Your task to perform on an android device: turn off smart reply in the gmail app Image 0: 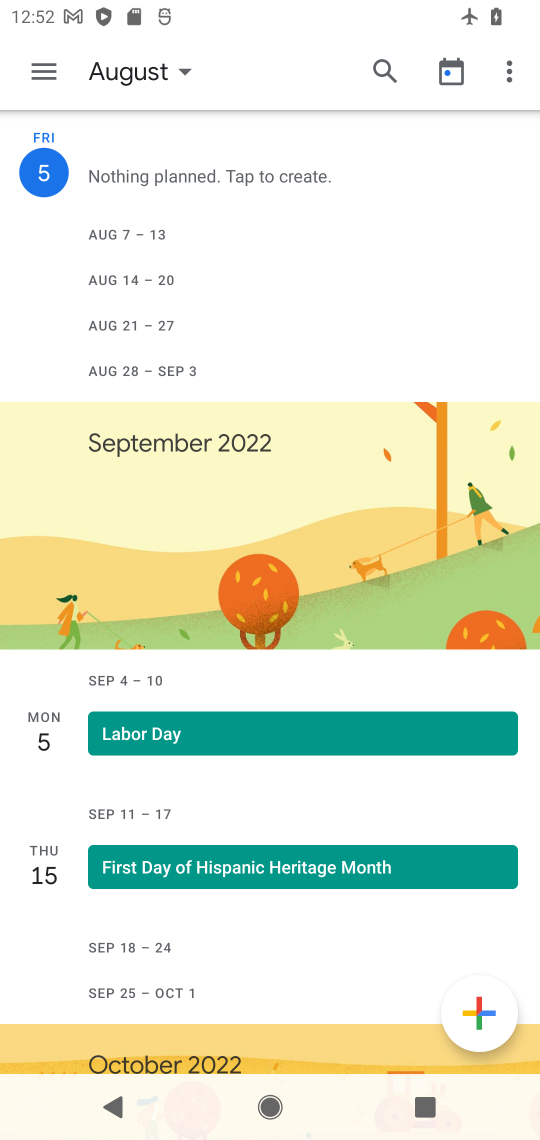
Step 0: press home button
Your task to perform on an android device: turn off smart reply in the gmail app Image 1: 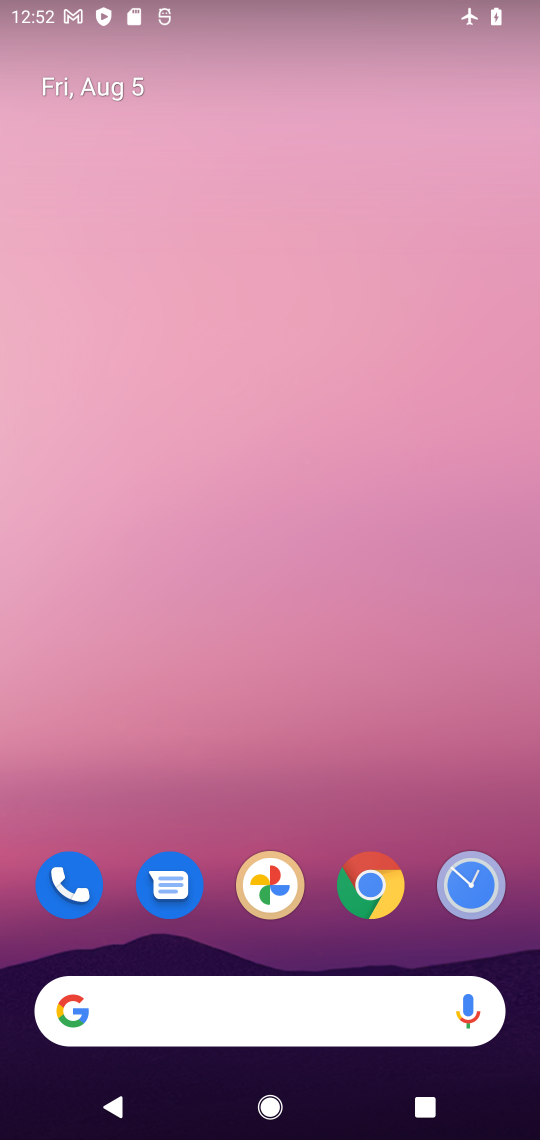
Step 1: drag from (288, 821) to (252, 396)
Your task to perform on an android device: turn off smart reply in the gmail app Image 2: 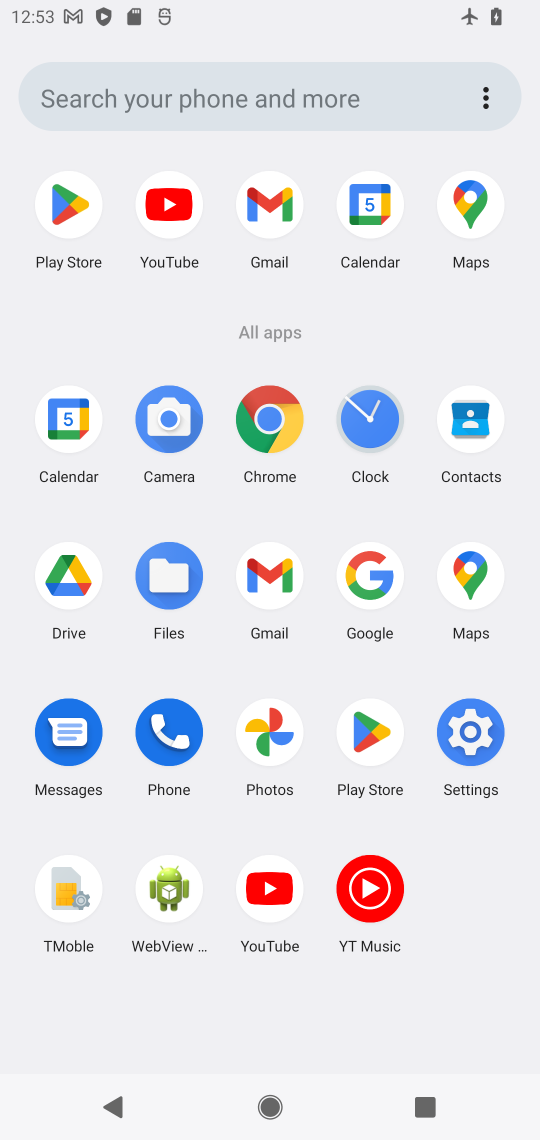
Step 2: click (270, 210)
Your task to perform on an android device: turn off smart reply in the gmail app Image 3: 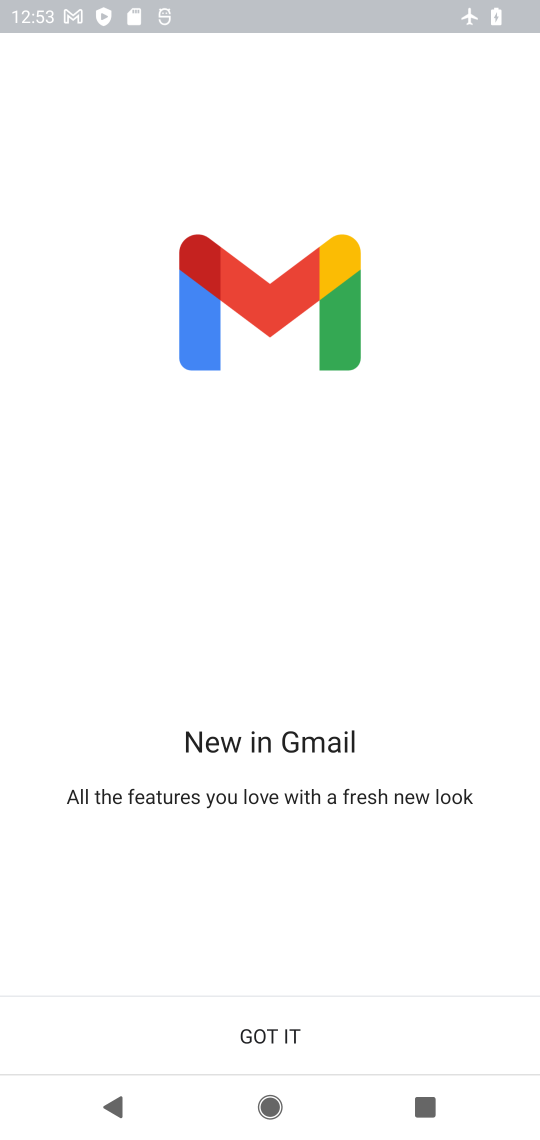
Step 3: click (238, 1042)
Your task to perform on an android device: turn off smart reply in the gmail app Image 4: 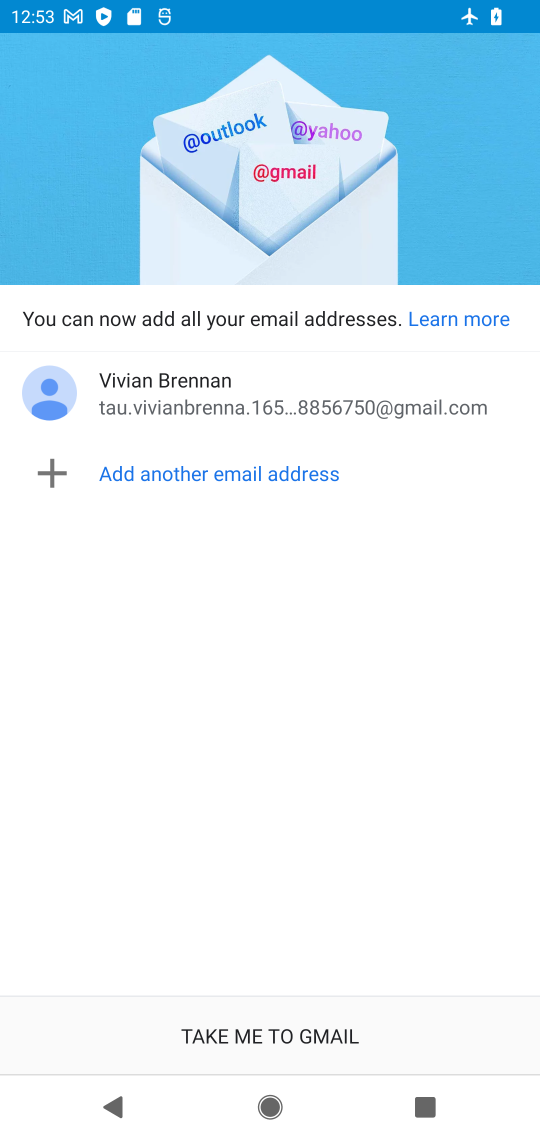
Step 4: click (238, 1042)
Your task to perform on an android device: turn off smart reply in the gmail app Image 5: 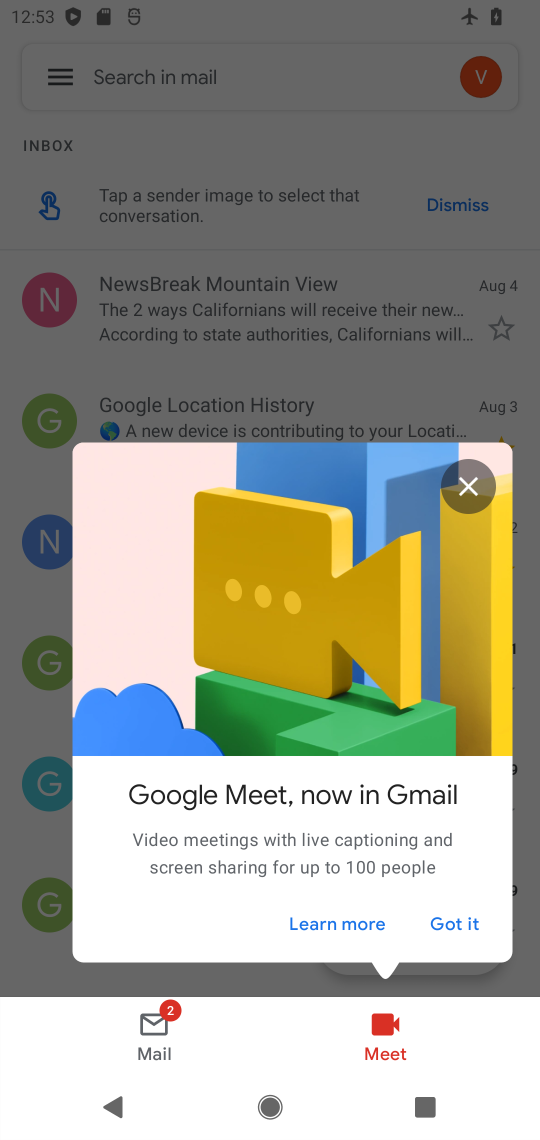
Step 5: click (469, 490)
Your task to perform on an android device: turn off smart reply in the gmail app Image 6: 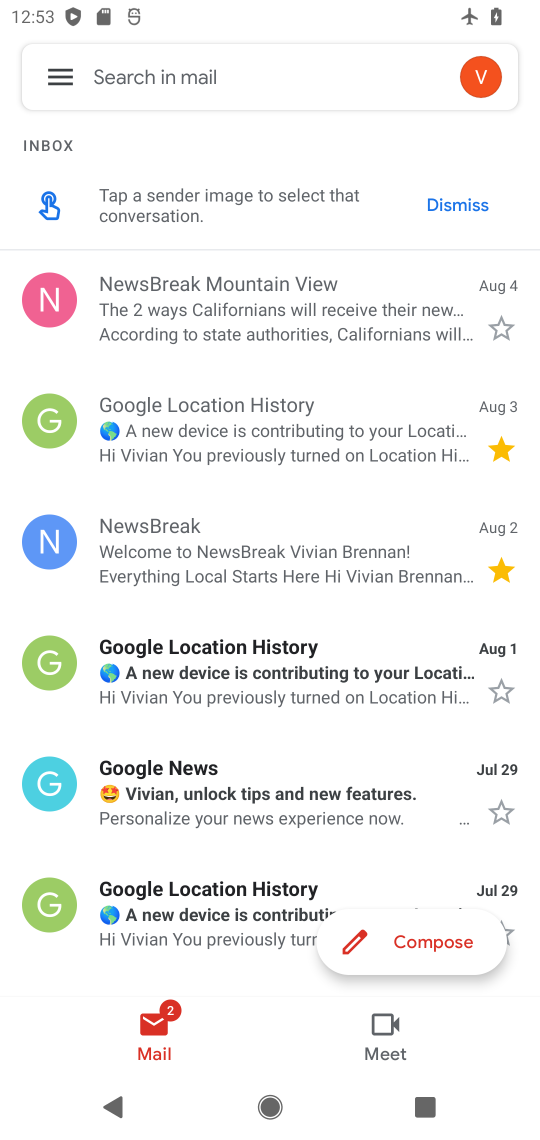
Step 6: click (58, 83)
Your task to perform on an android device: turn off smart reply in the gmail app Image 7: 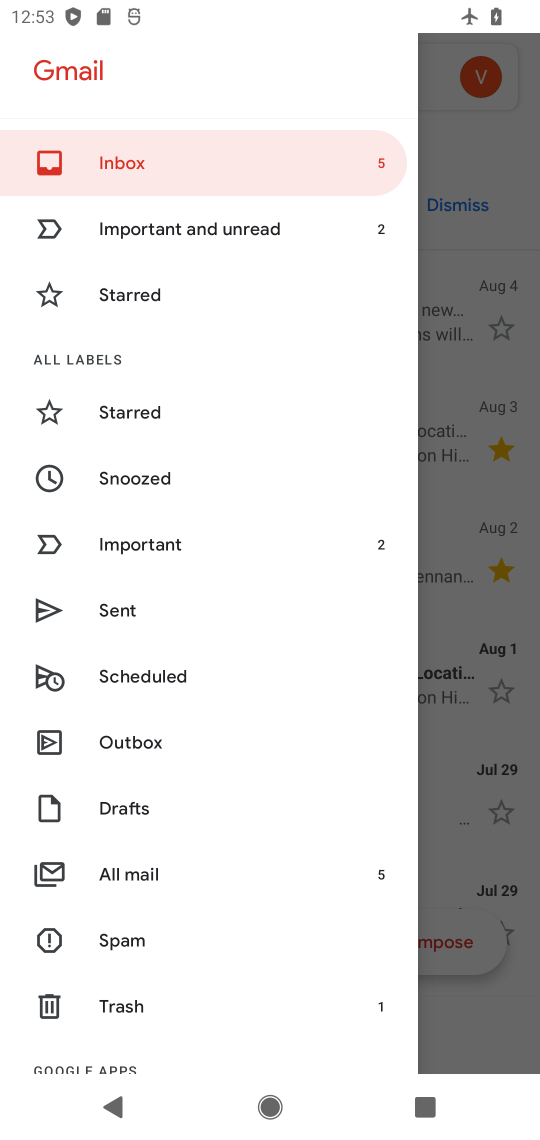
Step 7: click (177, 362)
Your task to perform on an android device: turn off smart reply in the gmail app Image 8: 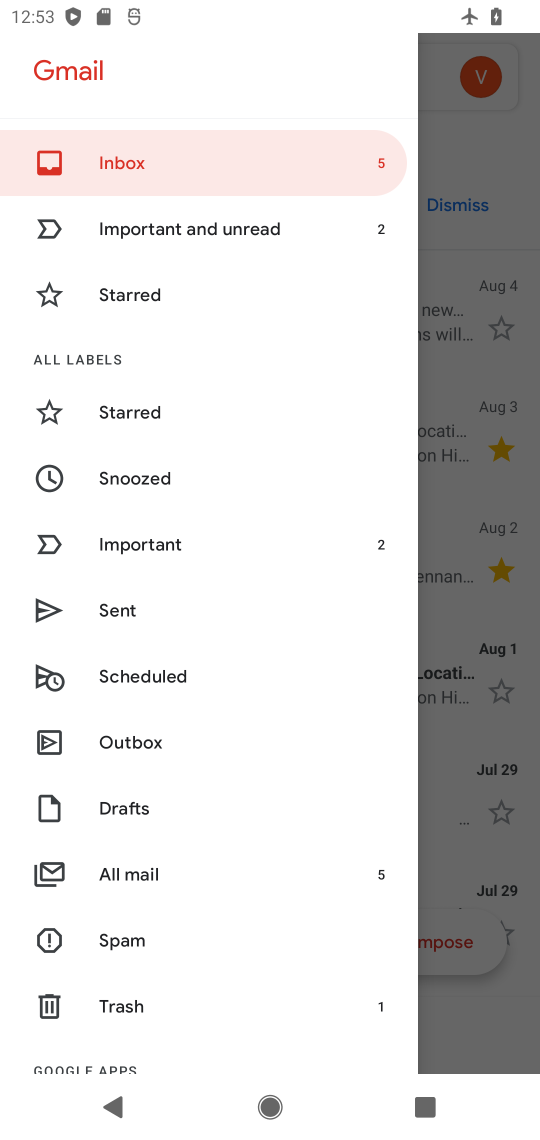
Step 8: drag from (171, 896) to (203, 490)
Your task to perform on an android device: turn off smart reply in the gmail app Image 9: 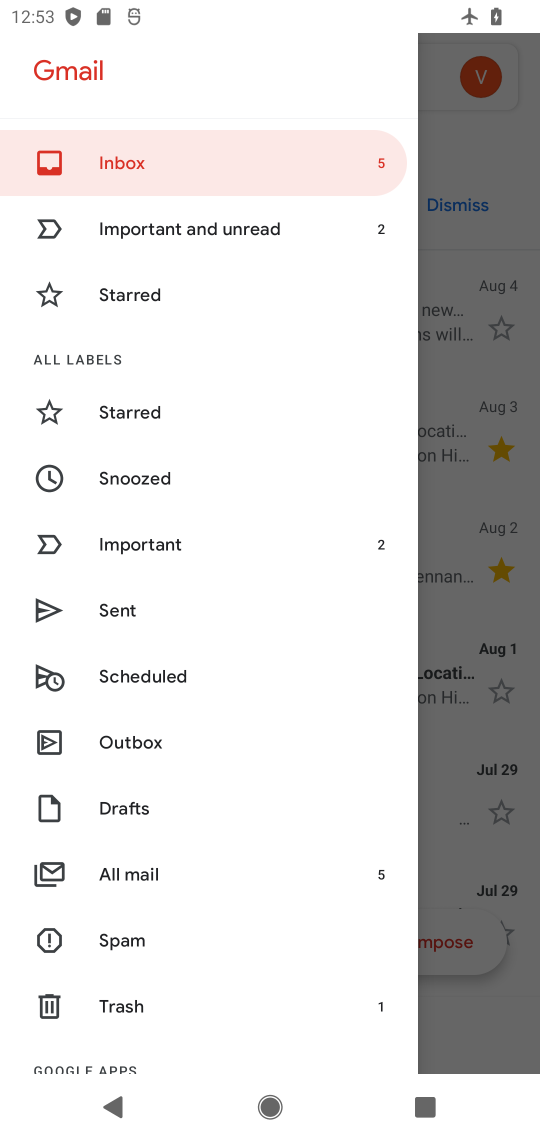
Step 9: drag from (167, 886) to (167, 439)
Your task to perform on an android device: turn off smart reply in the gmail app Image 10: 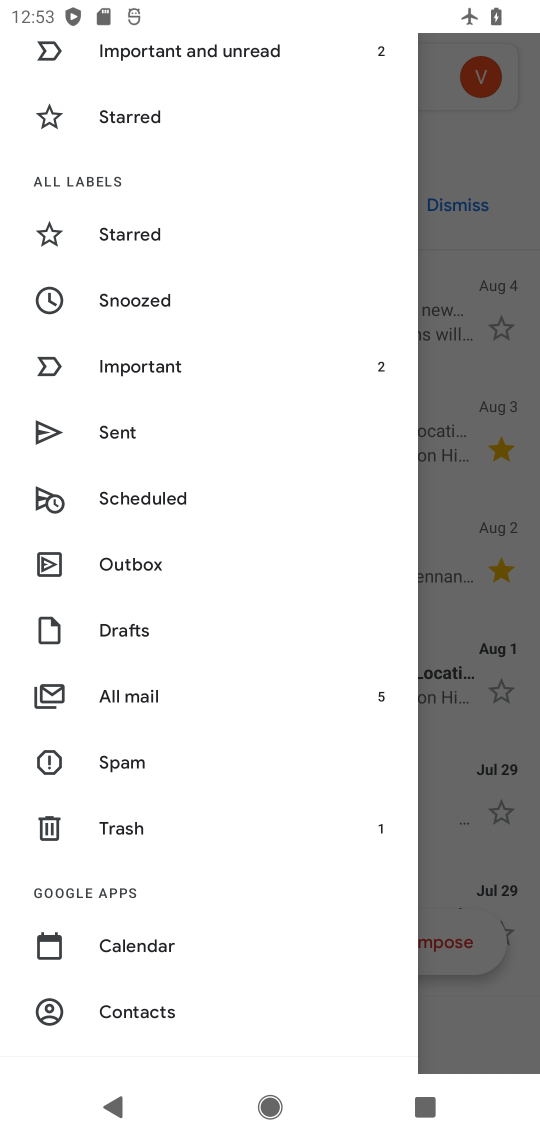
Step 10: drag from (222, 775) to (297, 465)
Your task to perform on an android device: turn off smart reply in the gmail app Image 11: 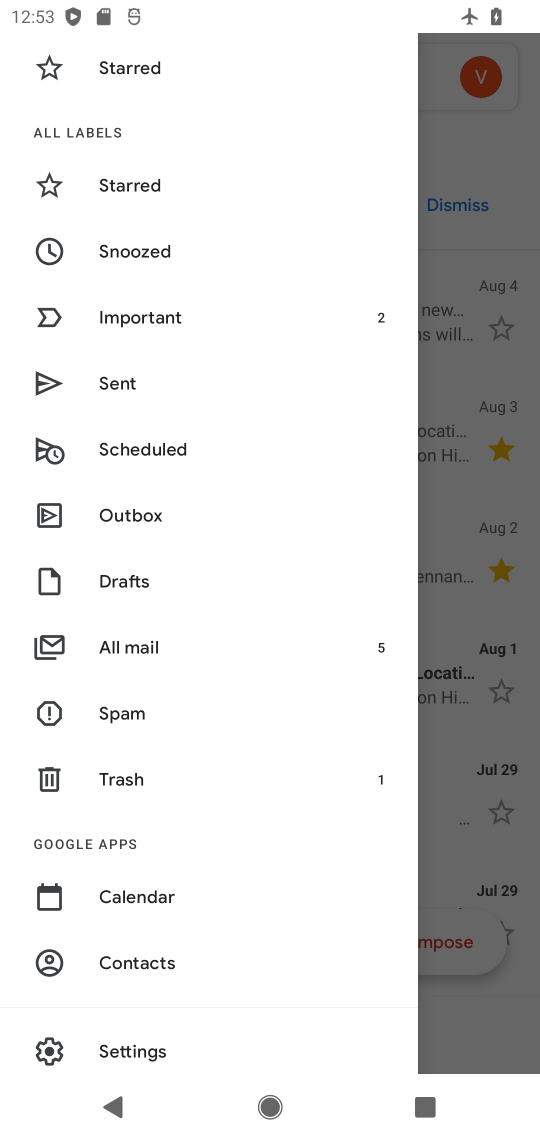
Step 11: click (114, 1051)
Your task to perform on an android device: turn off smart reply in the gmail app Image 12: 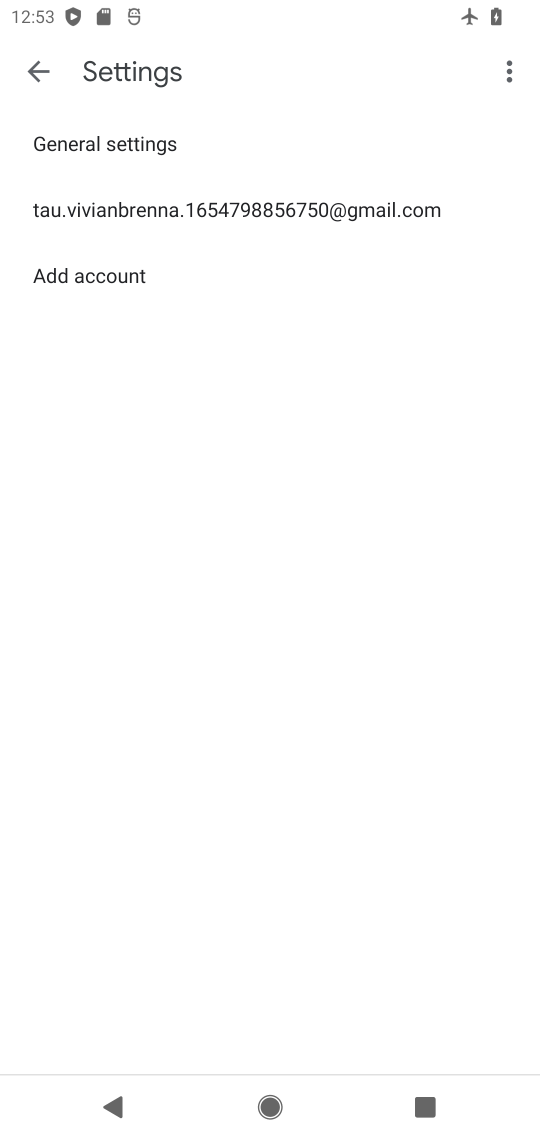
Step 12: click (304, 198)
Your task to perform on an android device: turn off smart reply in the gmail app Image 13: 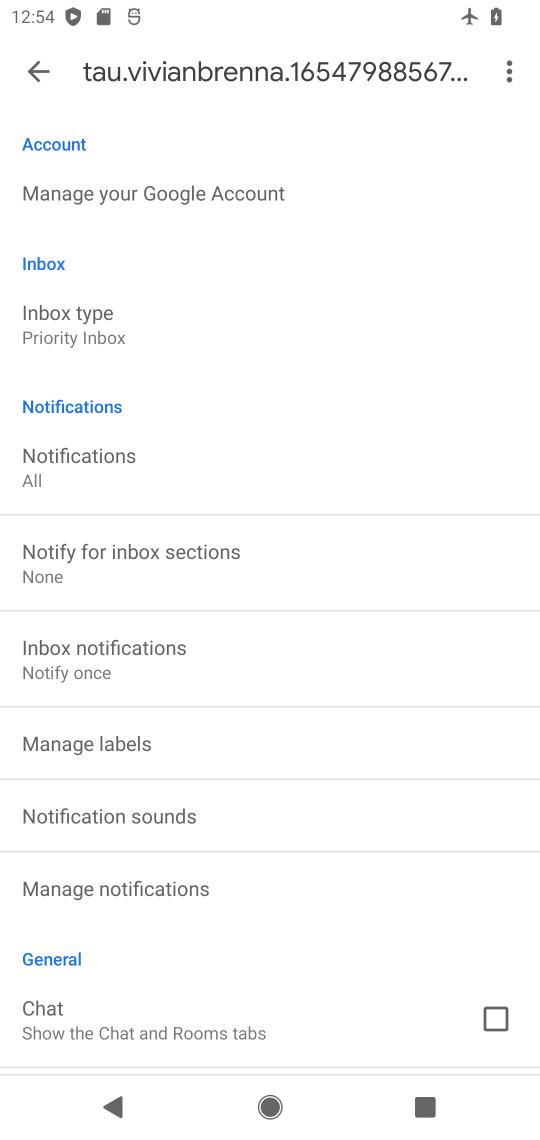
Step 13: drag from (277, 902) to (344, 44)
Your task to perform on an android device: turn off smart reply in the gmail app Image 14: 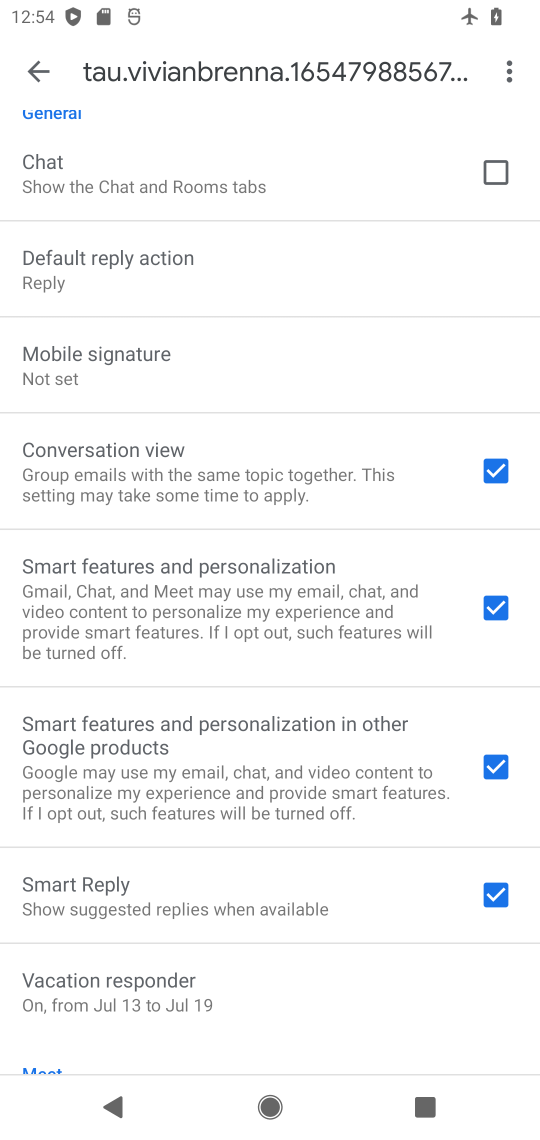
Step 14: click (502, 896)
Your task to perform on an android device: turn off smart reply in the gmail app Image 15: 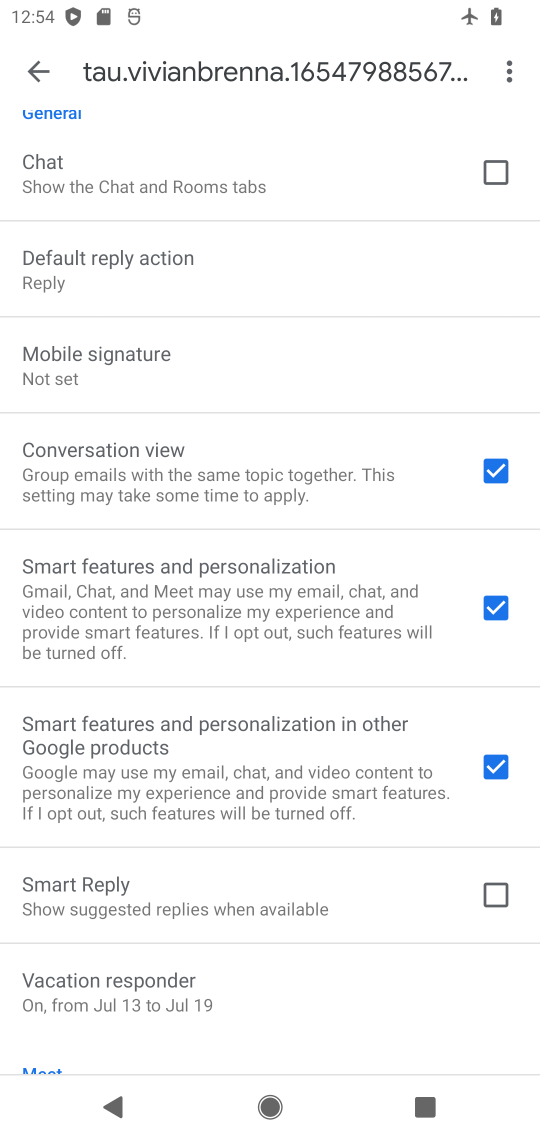
Step 15: task complete